Your task to perform on an android device: Clear all items from cart on newegg. Add macbook pro to the cart on newegg Image 0: 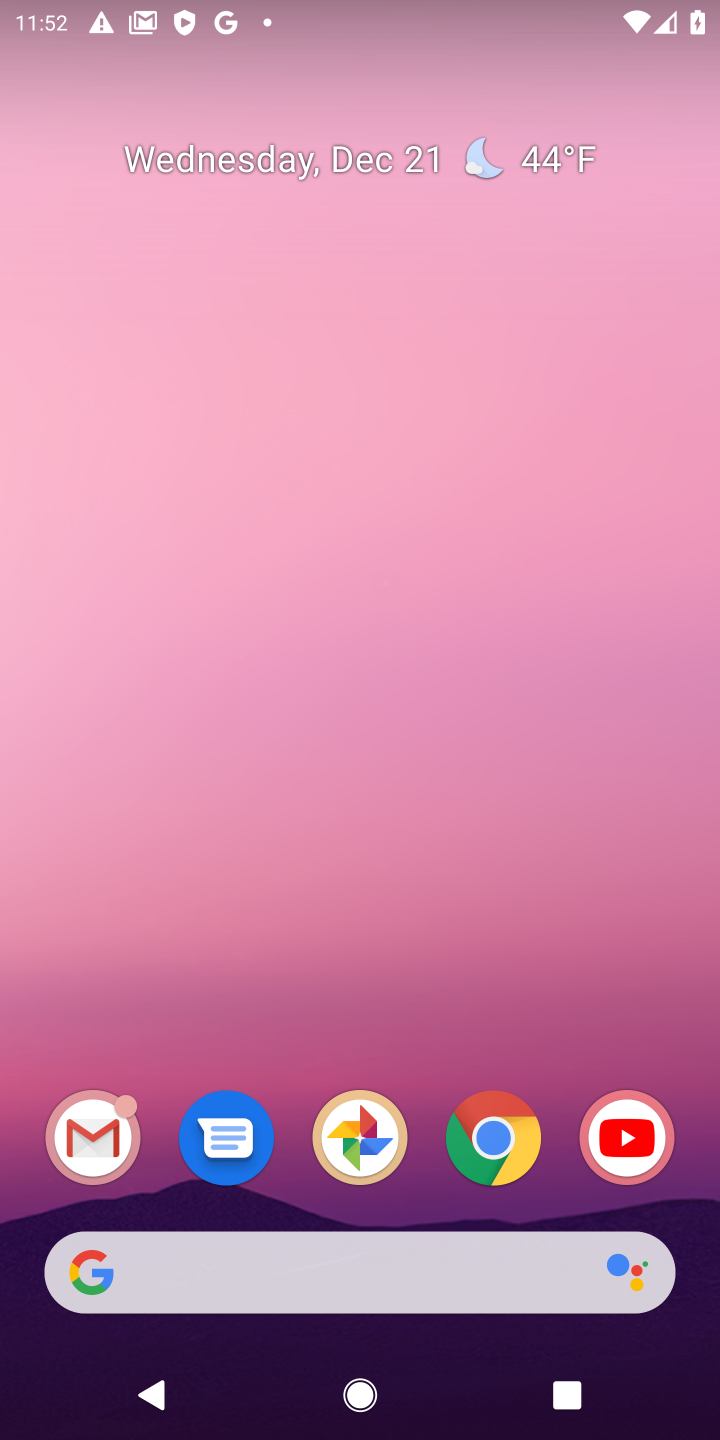
Step 0: click (492, 1152)
Your task to perform on an android device: Clear all items from cart on newegg. Add macbook pro to the cart on newegg Image 1: 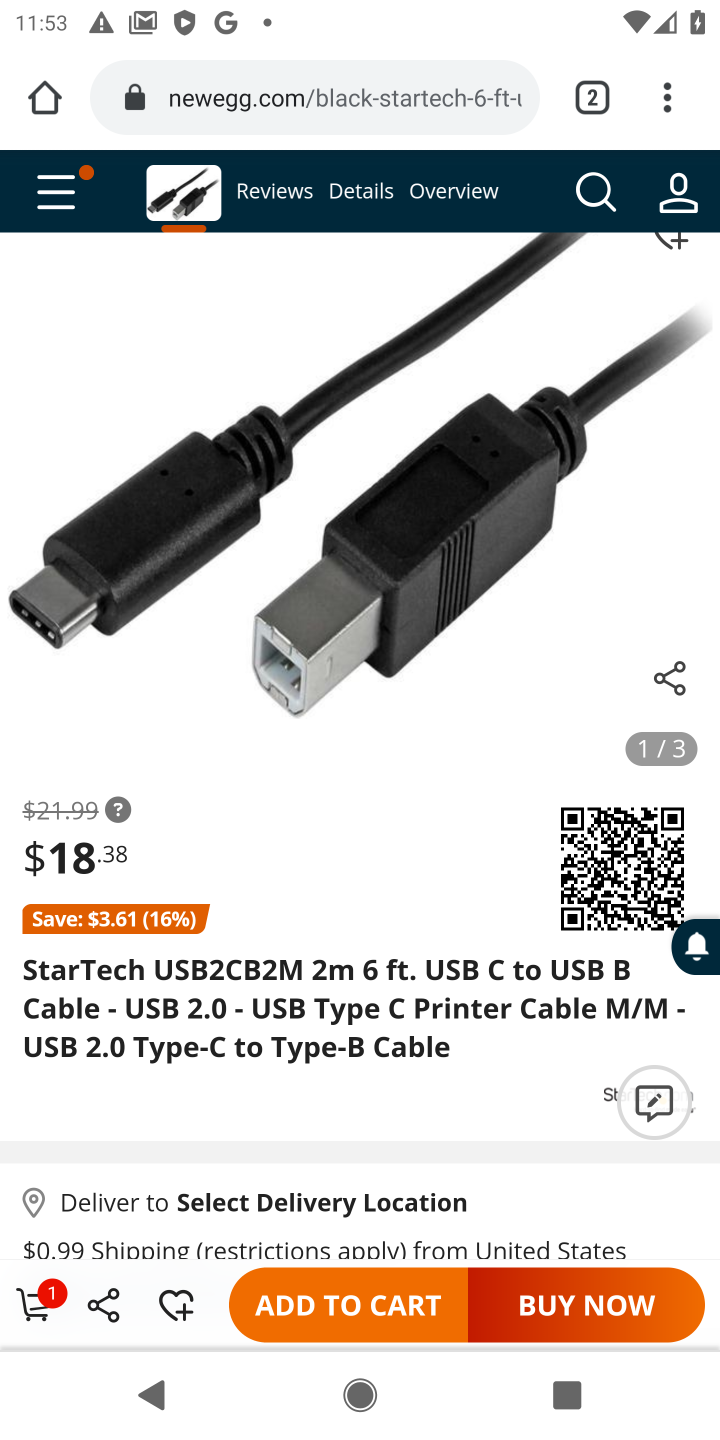
Step 1: click (39, 1297)
Your task to perform on an android device: Clear all items from cart on newegg. Add macbook pro to the cart on newegg Image 2: 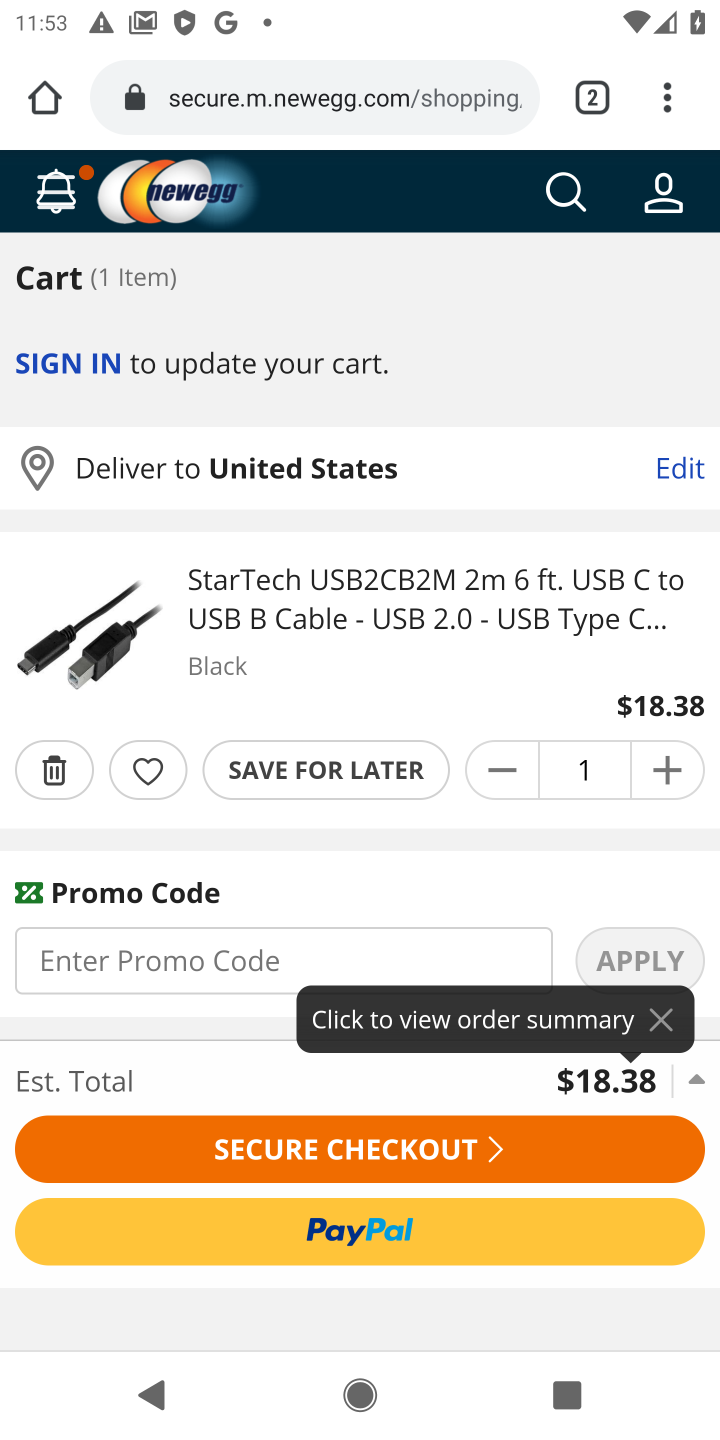
Step 2: click (60, 779)
Your task to perform on an android device: Clear all items from cart on newegg. Add macbook pro to the cart on newegg Image 3: 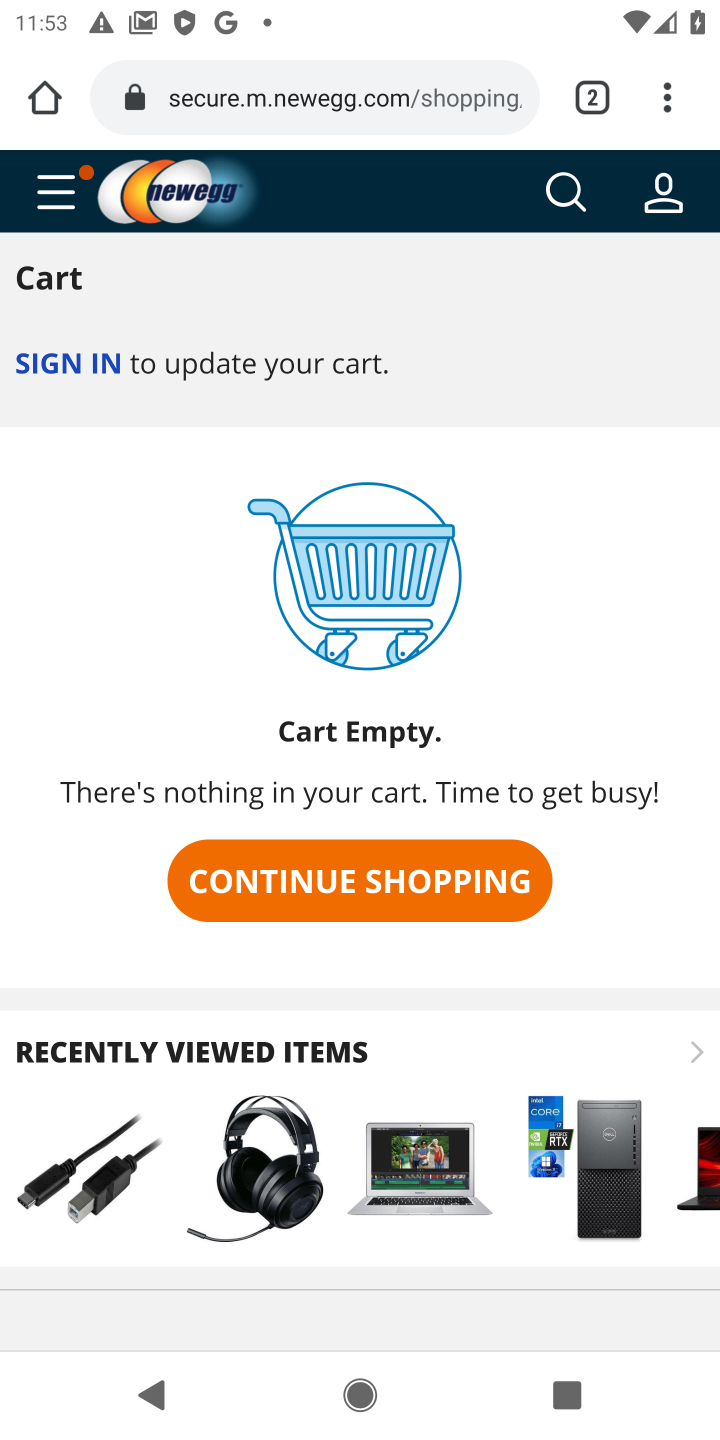
Step 3: click (565, 185)
Your task to perform on an android device: Clear all items from cart on newegg. Add macbook pro to the cart on newegg Image 4: 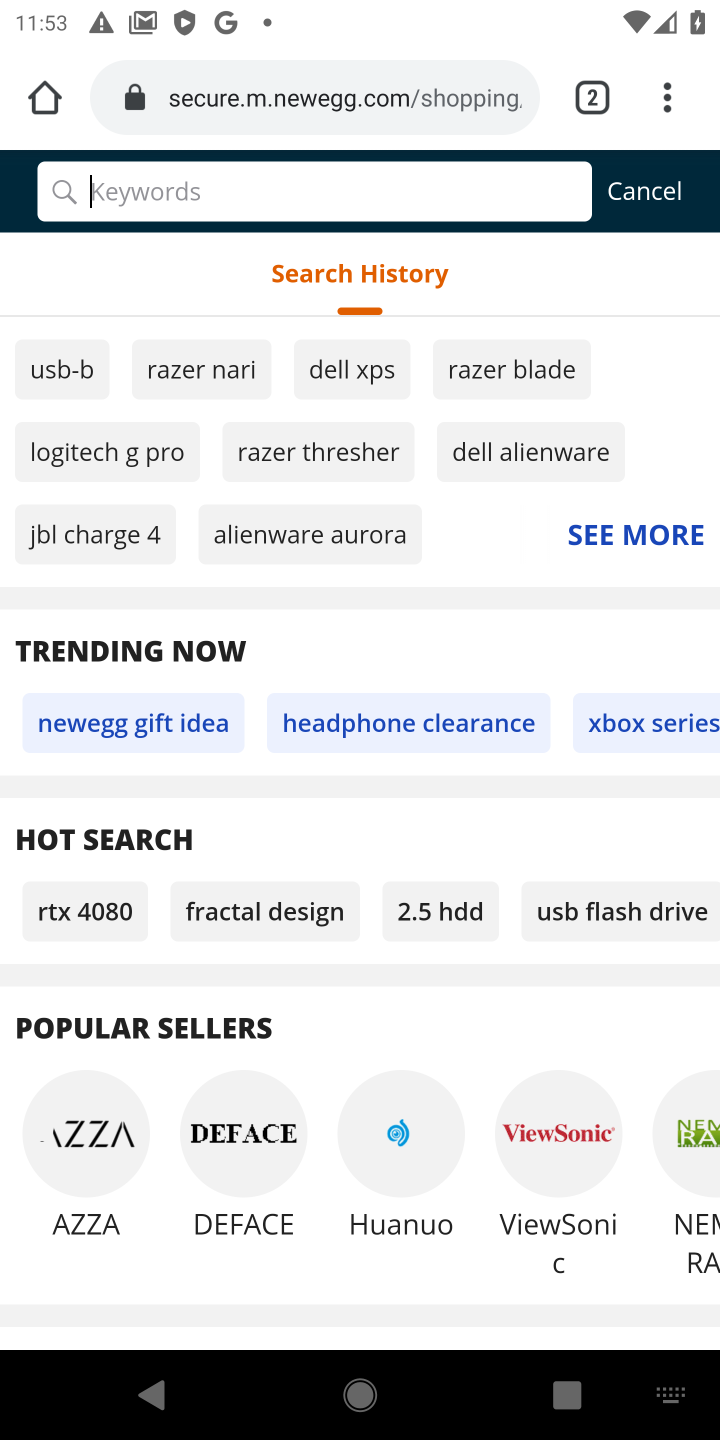
Step 4: type "macbook pro"
Your task to perform on an android device: Clear all items from cart on newegg. Add macbook pro to the cart on newegg Image 5: 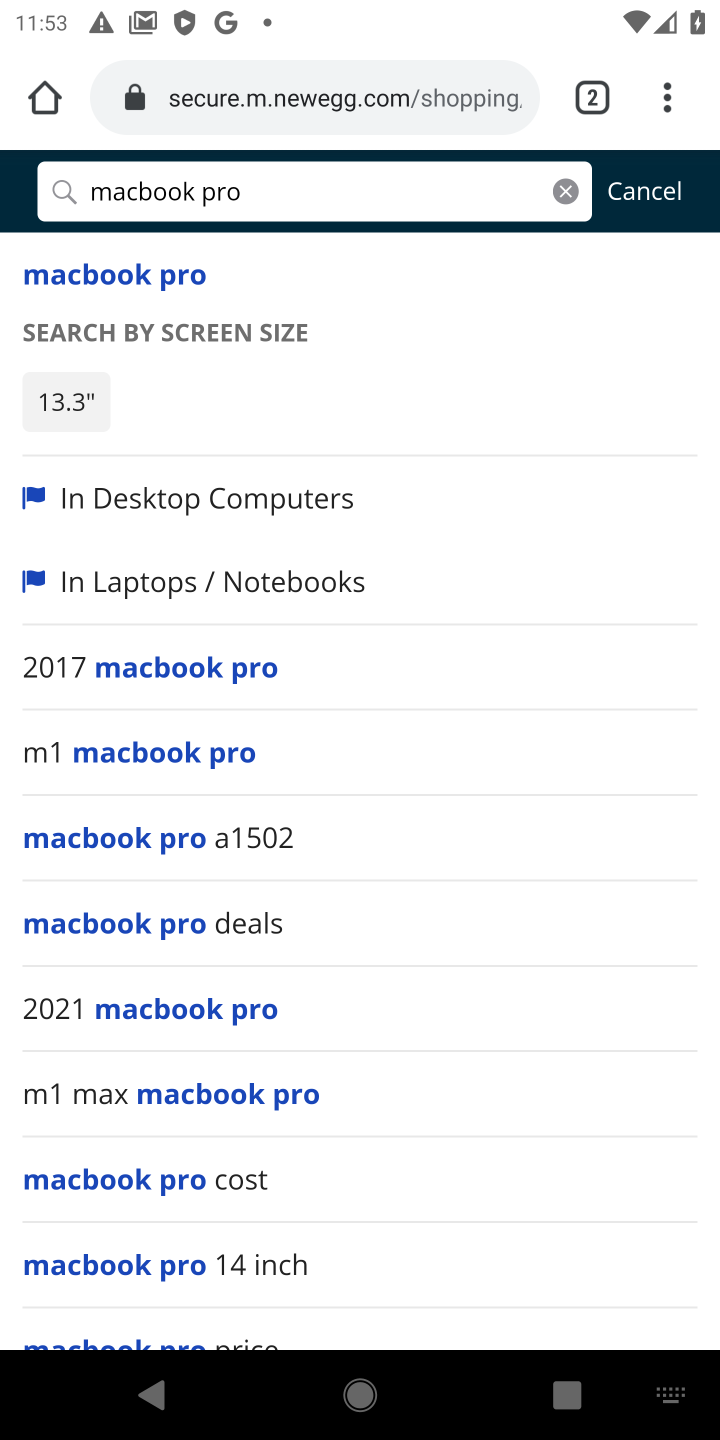
Step 5: click (102, 279)
Your task to perform on an android device: Clear all items from cart on newegg. Add macbook pro to the cart on newegg Image 6: 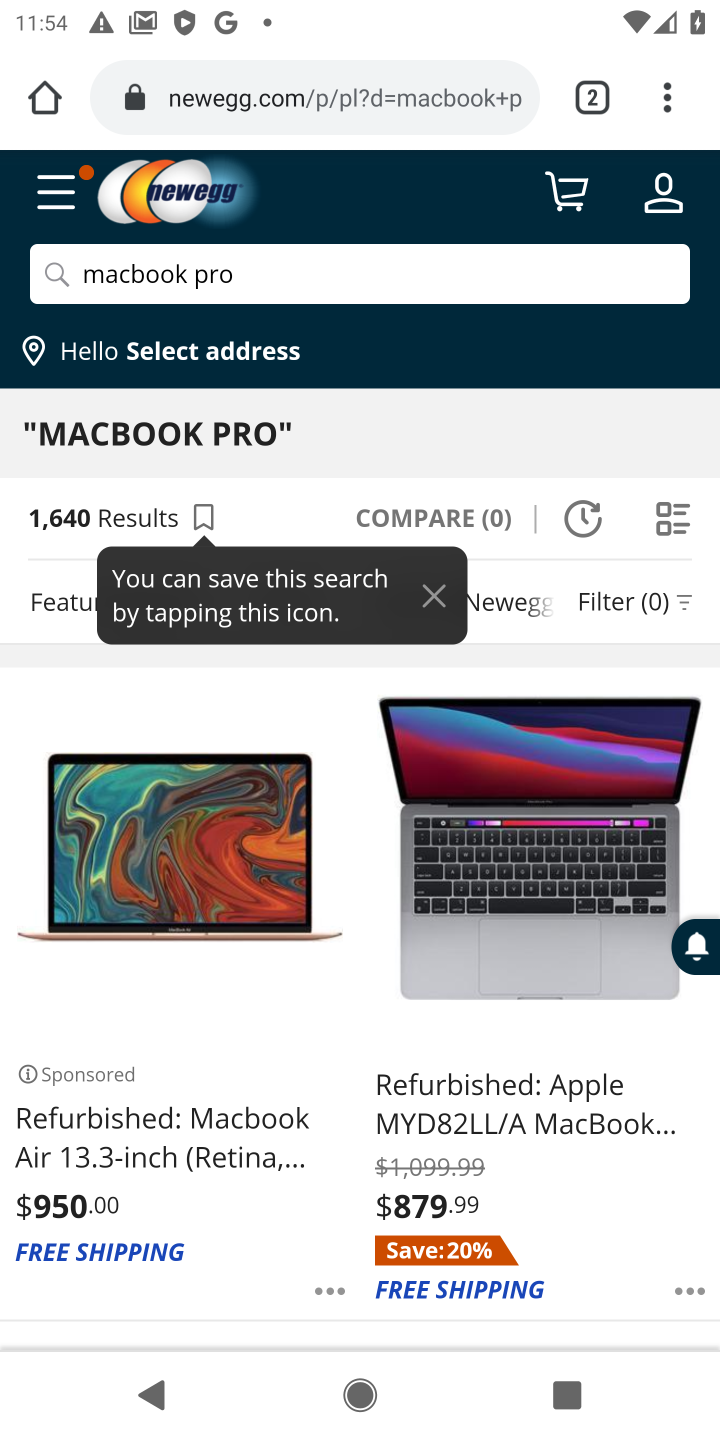
Step 6: drag from (159, 1094) to (159, 801)
Your task to perform on an android device: Clear all items from cart on newegg. Add macbook pro to the cart on newegg Image 7: 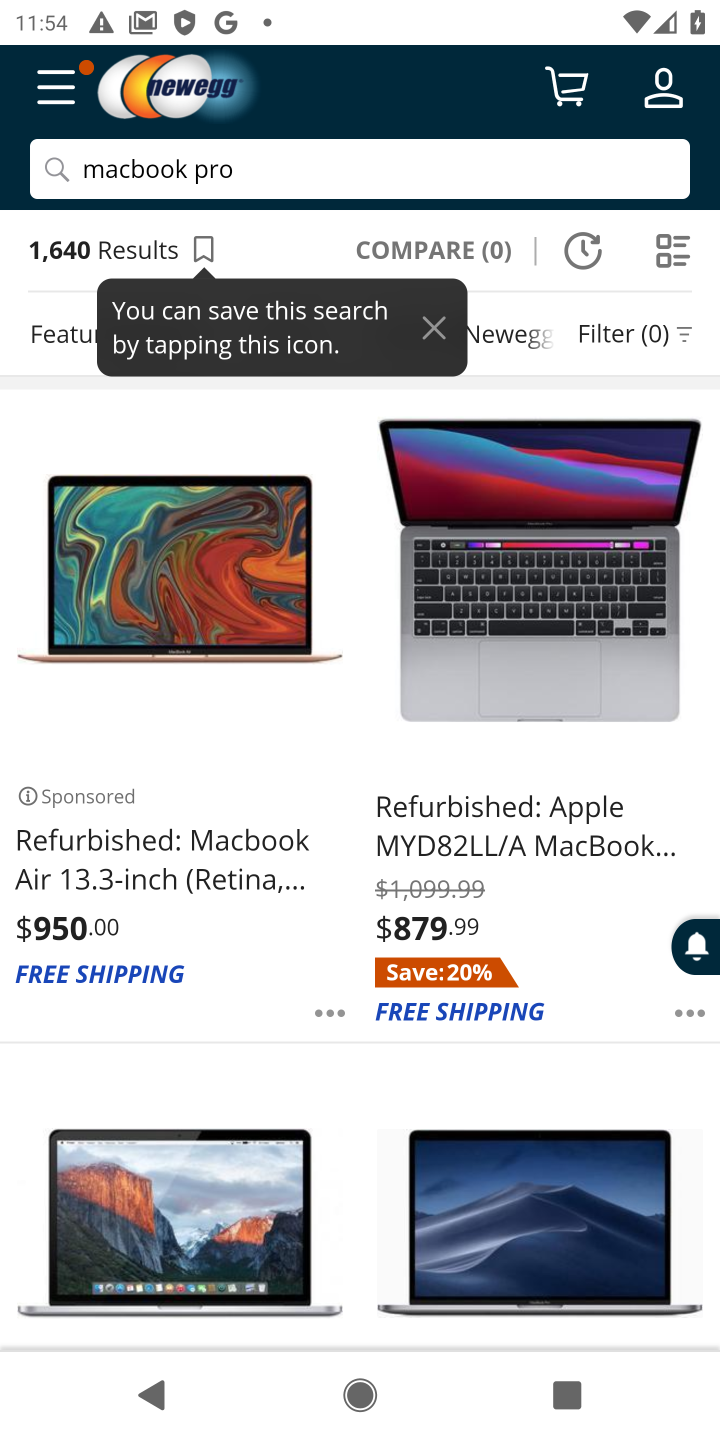
Step 7: drag from (424, 1083) to (392, 582)
Your task to perform on an android device: Clear all items from cart on newegg. Add macbook pro to the cart on newegg Image 8: 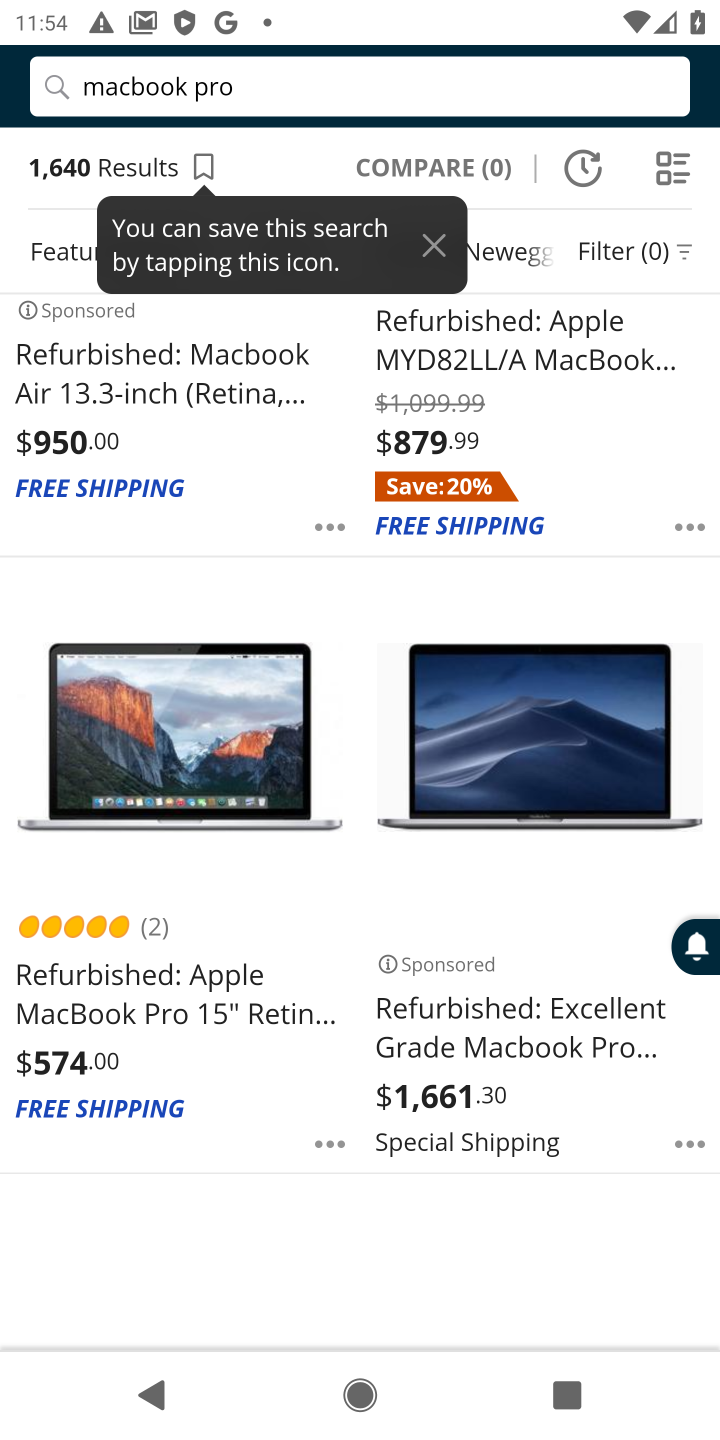
Step 8: click (152, 1010)
Your task to perform on an android device: Clear all items from cart on newegg. Add macbook pro to the cart on newegg Image 9: 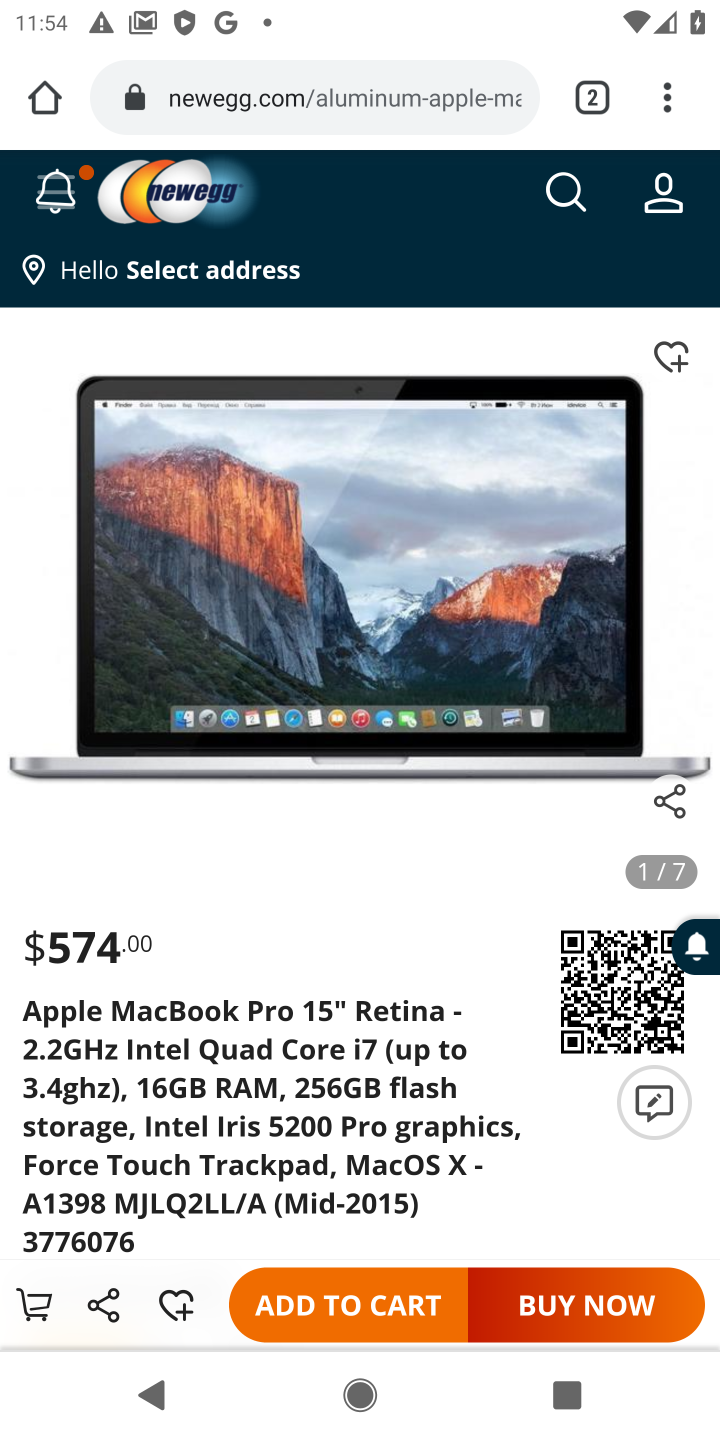
Step 9: click (340, 1309)
Your task to perform on an android device: Clear all items from cart on newegg. Add macbook pro to the cart on newegg Image 10: 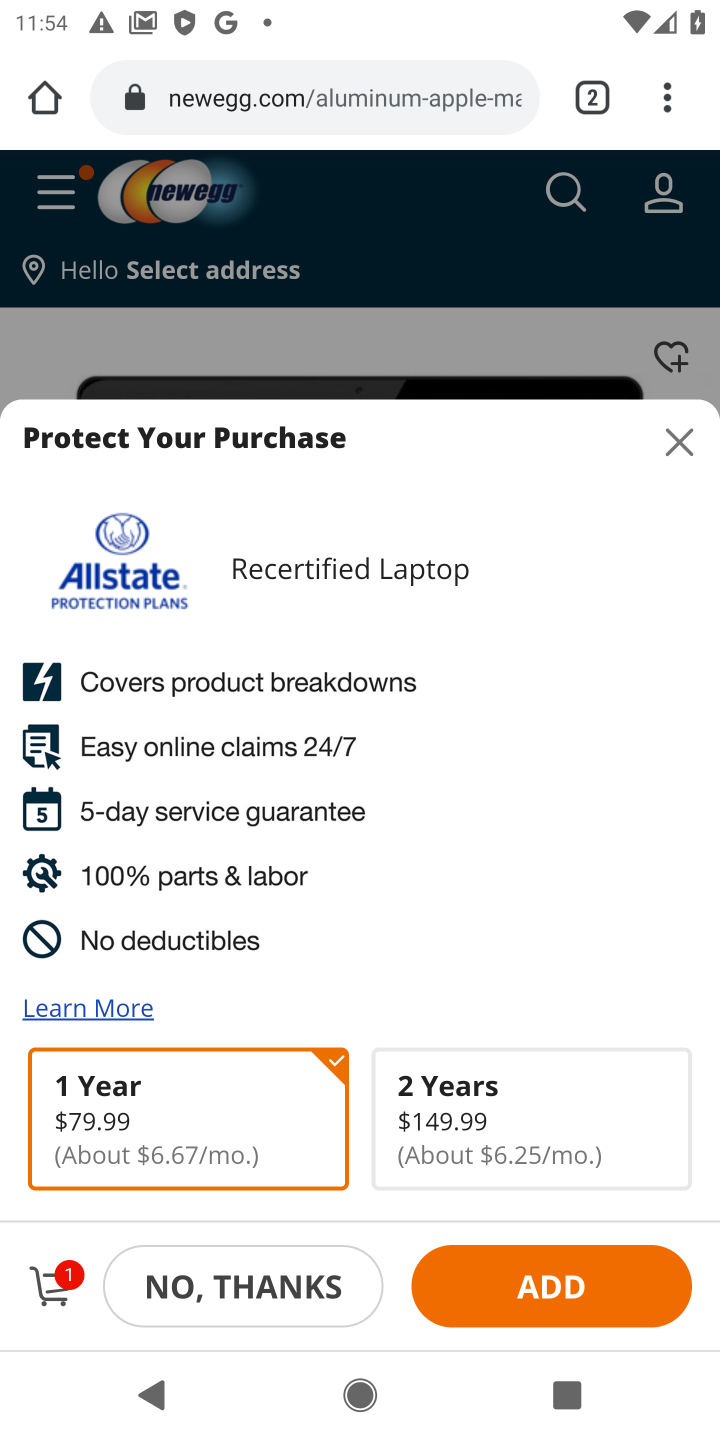
Step 10: task complete